Your task to perform on an android device: refresh tabs in the chrome app Image 0: 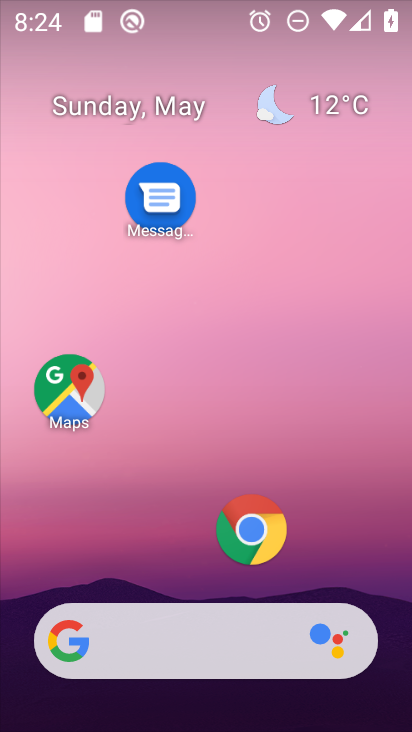
Step 0: press home button
Your task to perform on an android device: refresh tabs in the chrome app Image 1: 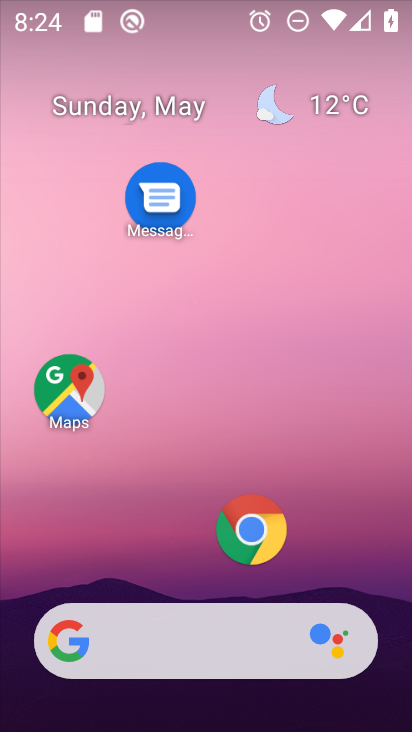
Step 1: click (248, 518)
Your task to perform on an android device: refresh tabs in the chrome app Image 2: 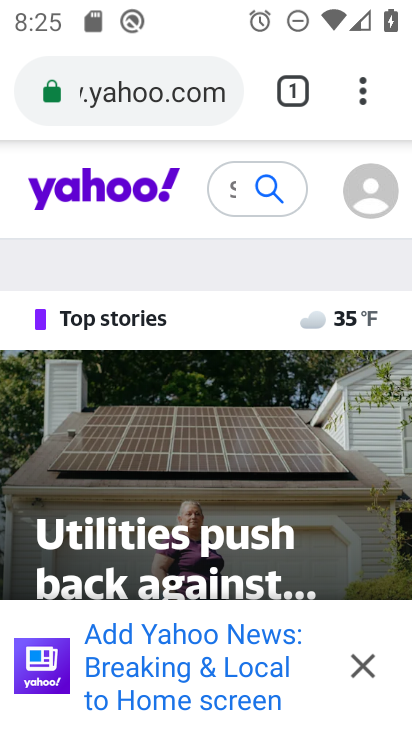
Step 2: click (361, 86)
Your task to perform on an android device: refresh tabs in the chrome app Image 3: 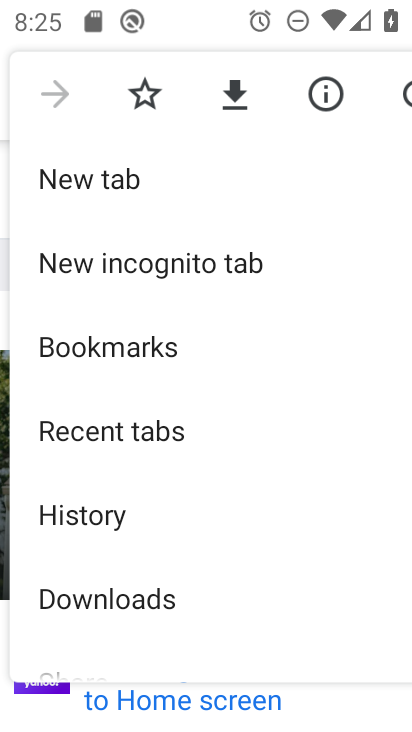
Step 3: click (394, 98)
Your task to perform on an android device: refresh tabs in the chrome app Image 4: 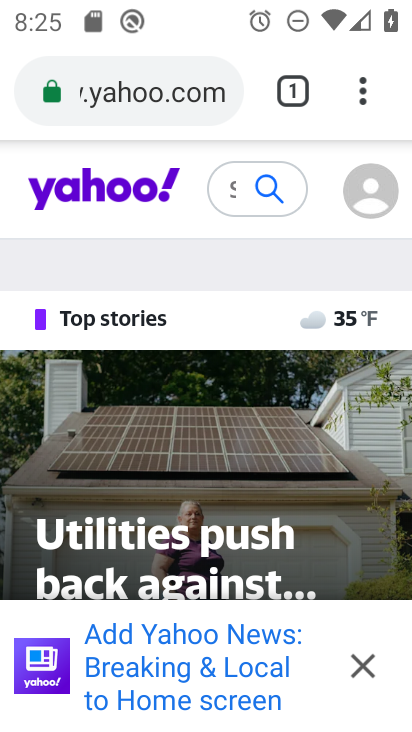
Step 4: task complete